Your task to perform on an android device: turn on priority inbox in the gmail app Image 0: 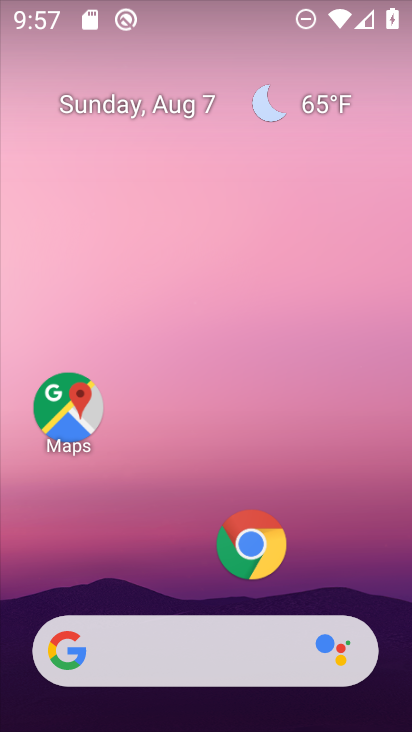
Step 0: drag from (199, 599) to (201, 115)
Your task to perform on an android device: turn on priority inbox in the gmail app Image 1: 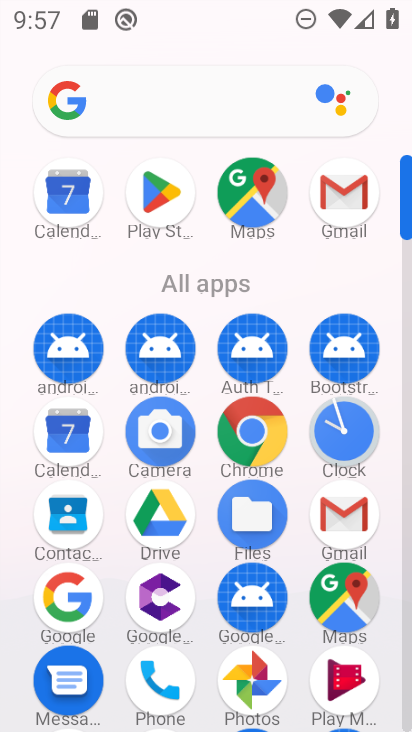
Step 1: click (338, 525)
Your task to perform on an android device: turn on priority inbox in the gmail app Image 2: 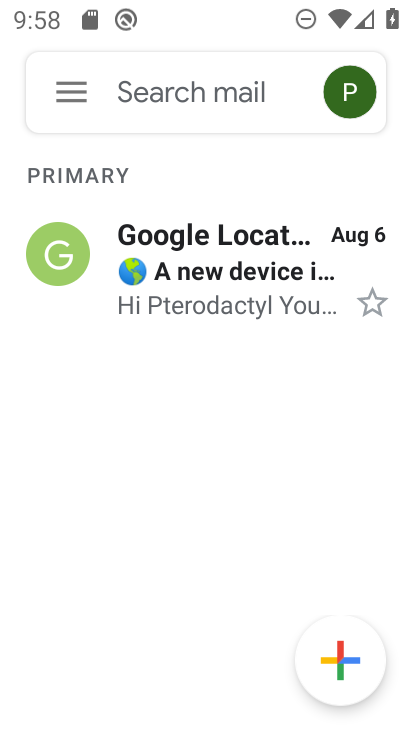
Step 2: click (86, 94)
Your task to perform on an android device: turn on priority inbox in the gmail app Image 3: 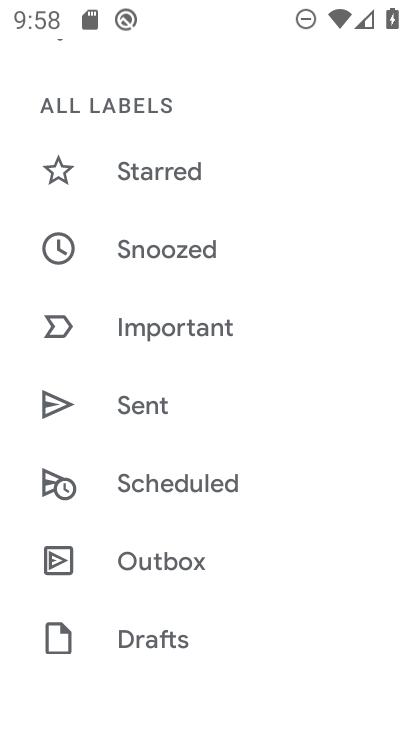
Step 3: drag from (198, 625) to (219, 7)
Your task to perform on an android device: turn on priority inbox in the gmail app Image 4: 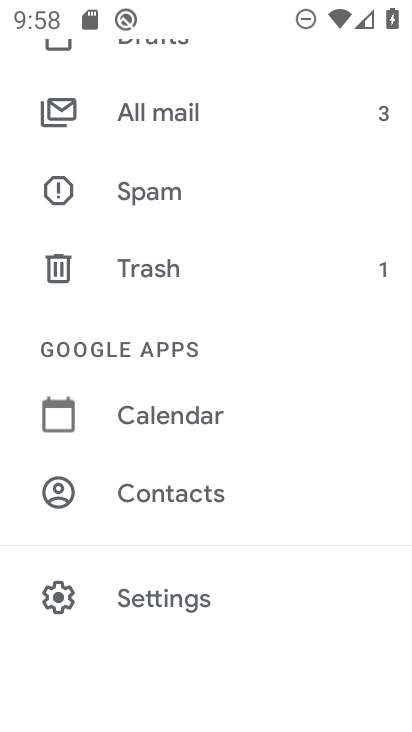
Step 4: click (185, 595)
Your task to perform on an android device: turn on priority inbox in the gmail app Image 5: 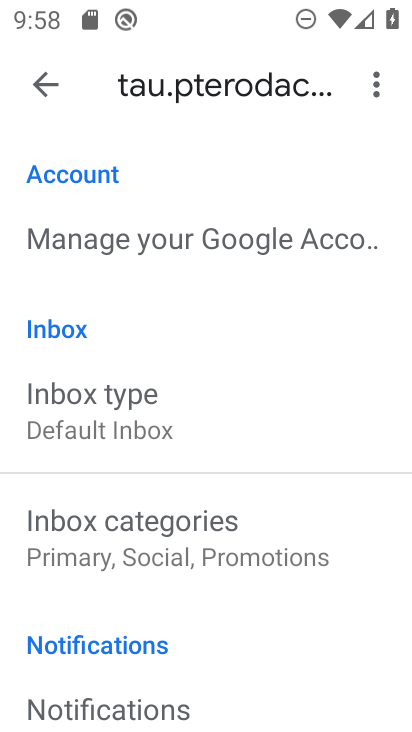
Step 5: click (127, 429)
Your task to perform on an android device: turn on priority inbox in the gmail app Image 6: 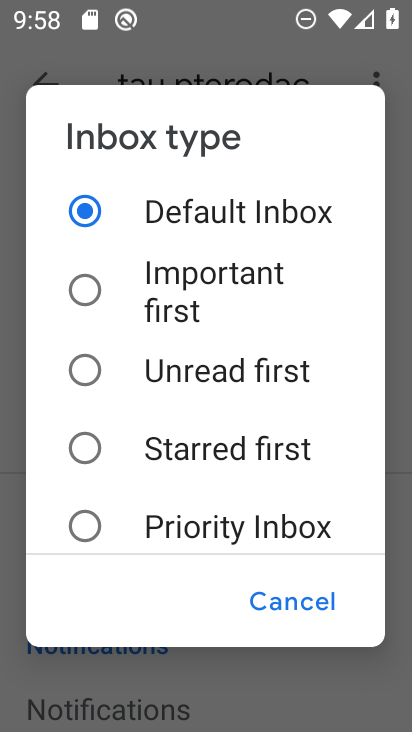
Step 6: click (143, 515)
Your task to perform on an android device: turn on priority inbox in the gmail app Image 7: 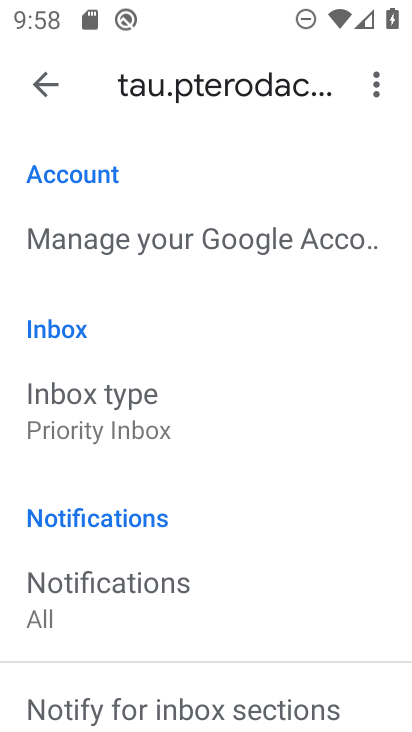
Step 7: task complete